Your task to perform on an android device: set the timer Image 0: 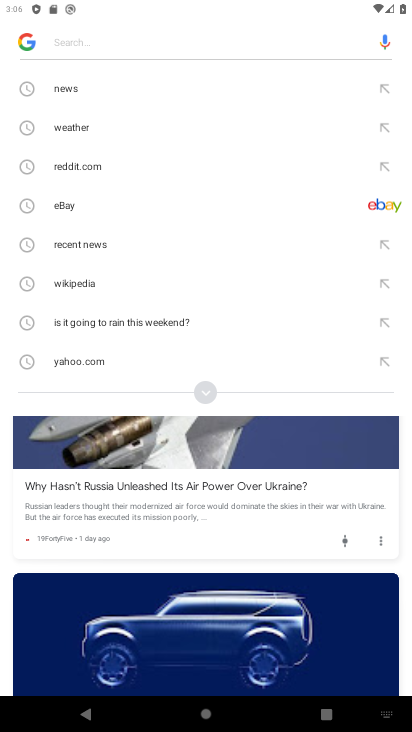
Step 0: press home button
Your task to perform on an android device: set the timer Image 1: 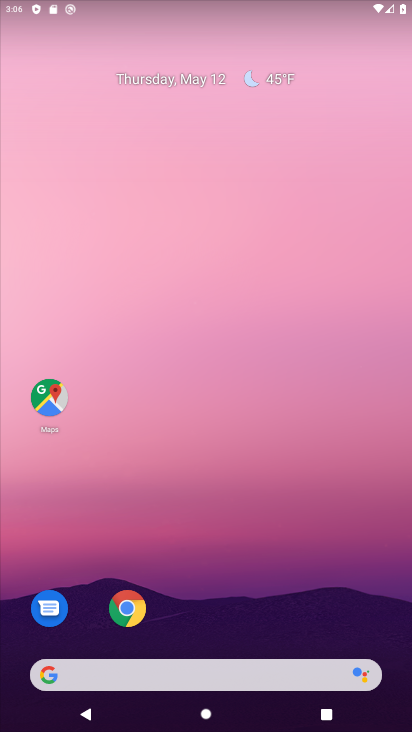
Step 1: drag from (227, 602) to (245, 96)
Your task to perform on an android device: set the timer Image 2: 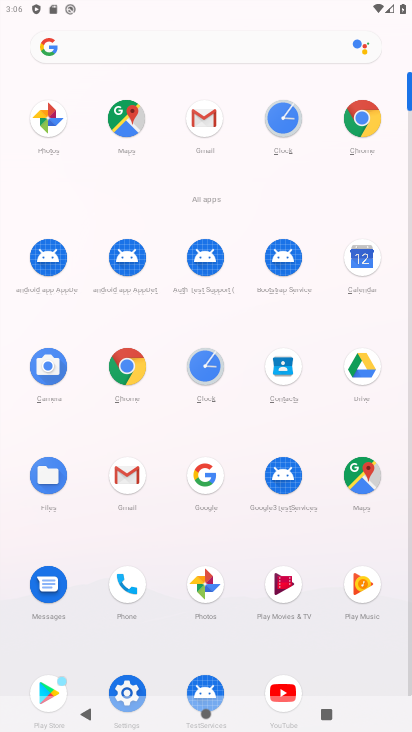
Step 2: click (281, 103)
Your task to perform on an android device: set the timer Image 3: 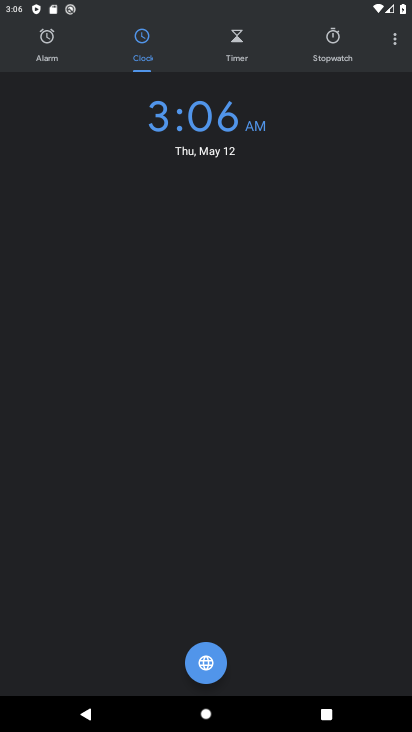
Step 3: click (263, 52)
Your task to perform on an android device: set the timer Image 4: 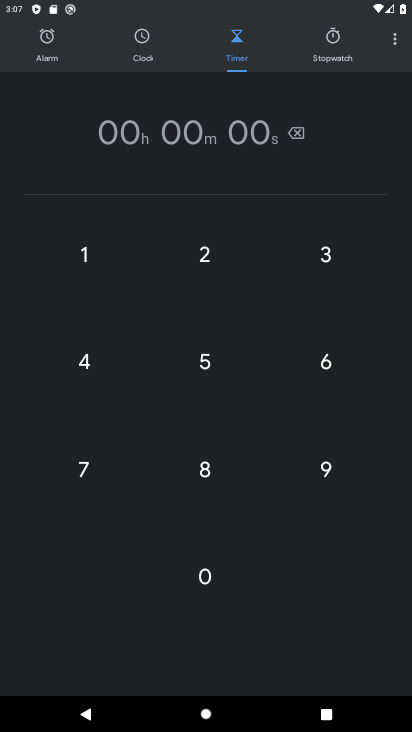
Step 4: click (327, 277)
Your task to perform on an android device: set the timer Image 5: 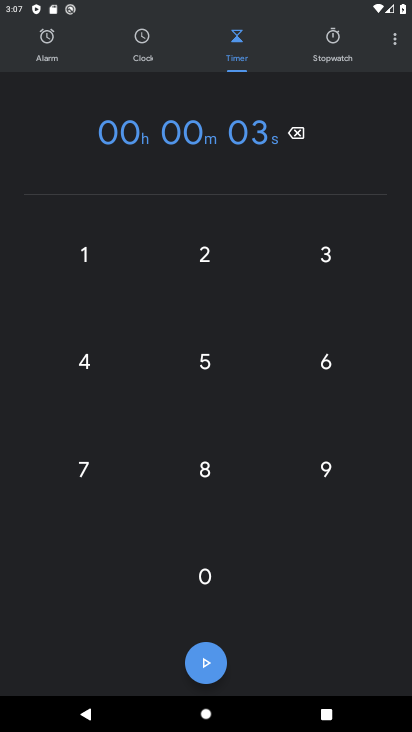
Step 5: task complete